Your task to perform on an android device: see tabs open on other devices in the chrome app Image 0: 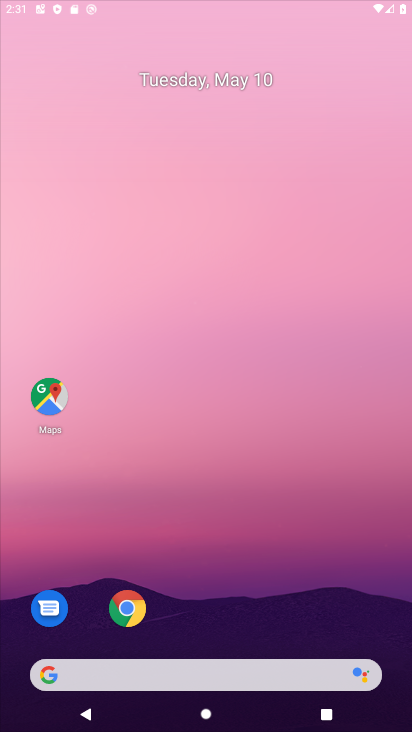
Step 0: click (142, 616)
Your task to perform on an android device: see tabs open on other devices in the chrome app Image 1: 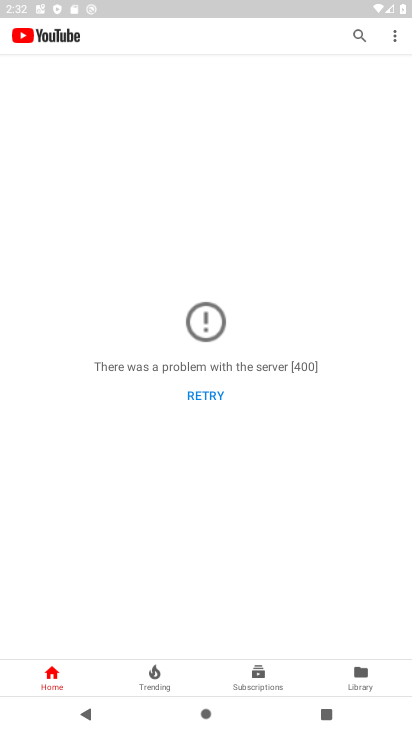
Step 1: press home button
Your task to perform on an android device: see tabs open on other devices in the chrome app Image 2: 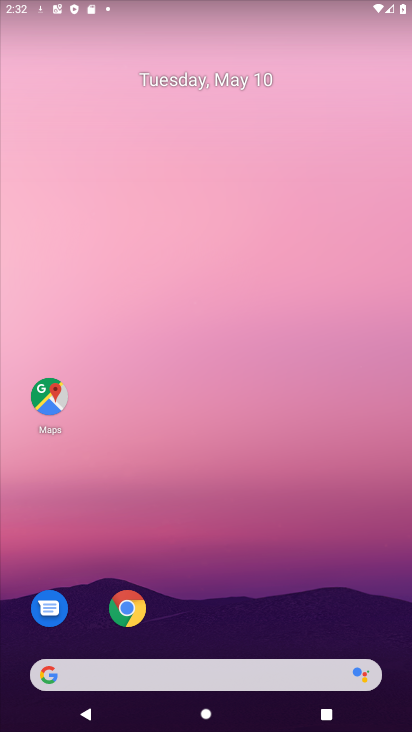
Step 2: click (132, 606)
Your task to perform on an android device: see tabs open on other devices in the chrome app Image 3: 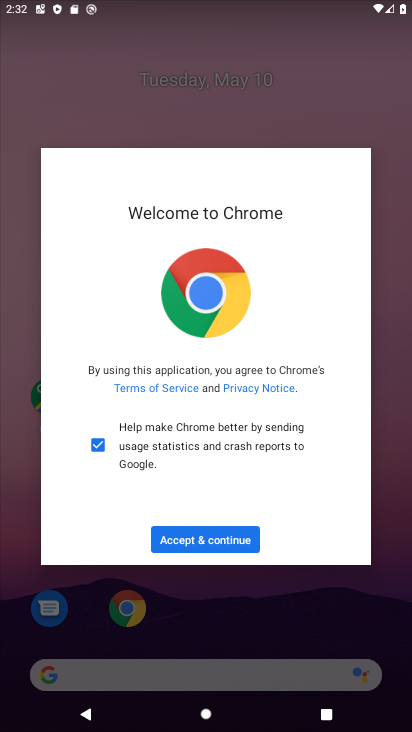
Step 3: click (202, 540)
Your task to perform on an android device: see tabs open on other devices in the chrome app Image 4: 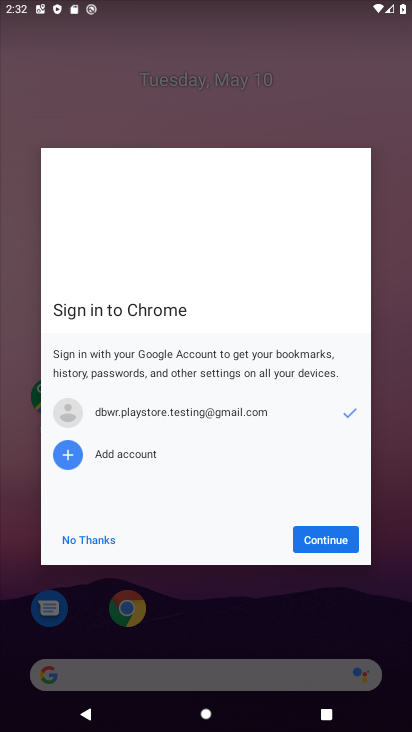
Step 4: click (339, 543)
Your task to perform on an android device: see tabs open on other devices in the chrome app Image 5: 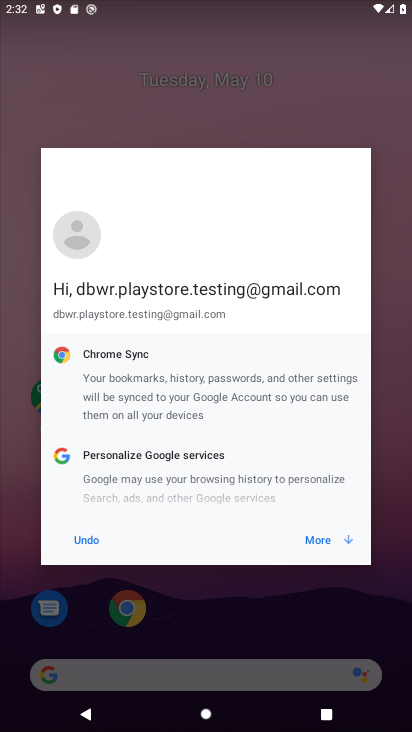
Step 5: click (333, 540)
Your task to perform on an android device: see tabs open on other devices in the chrome app Image 6: 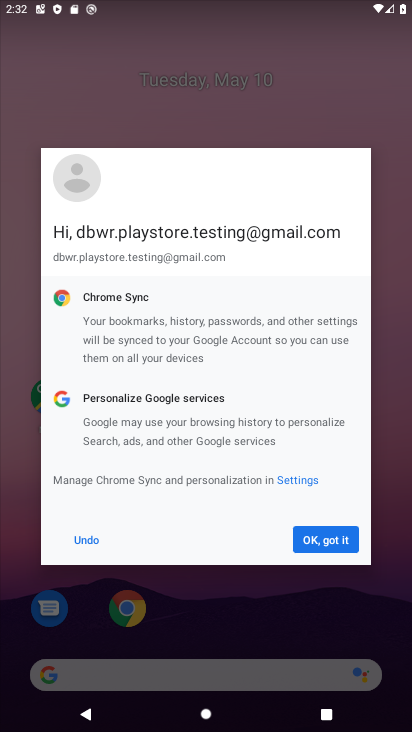
Step 6: click (333, 540)
Your task to perform on an android device: see tabs open on other devices in the chrome app Image 7: 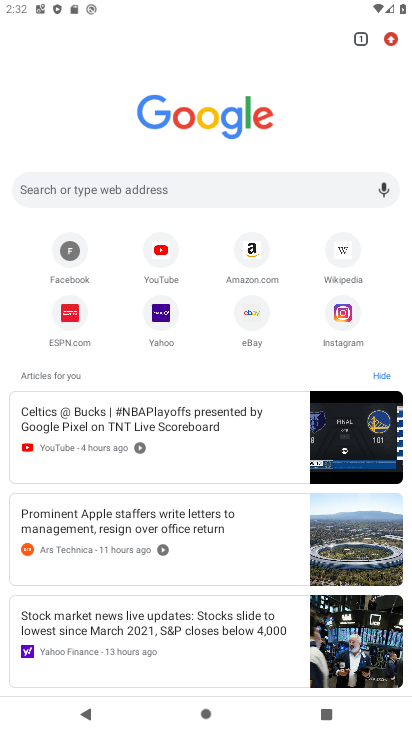
Step 7: click (393, 39)
Your task to perform on an android device: see tabs open on other devices in the chrome app Image 8: 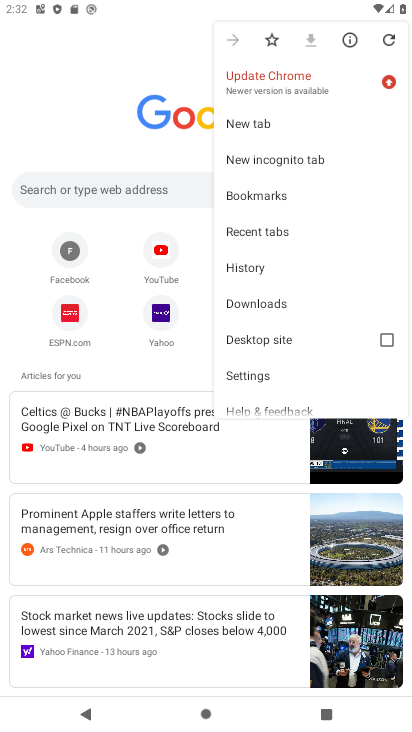
Step 8: click (282, 230)
Your task to perform on an android device: see tabs open on other devices in the chrome app Image 9: 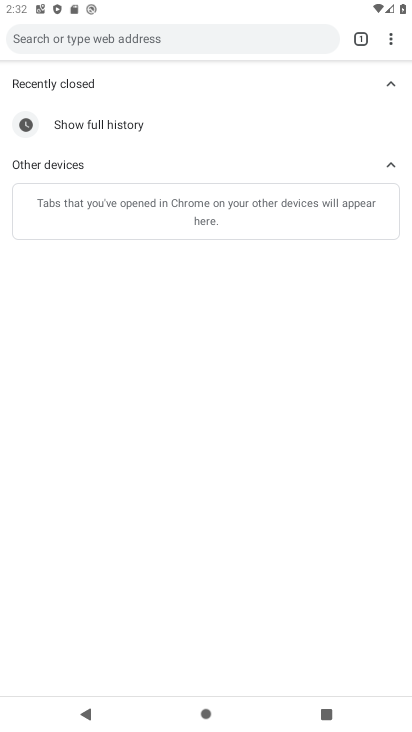
Step 9: task complete